Your task to perform on an android device: Toggle the flashlight Image 0: 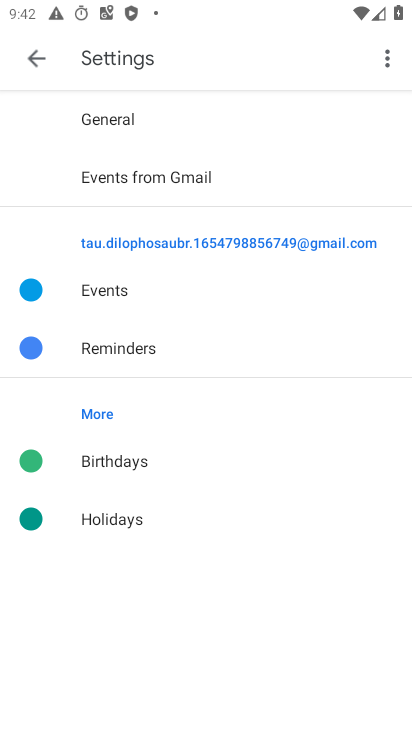
Step 0: press home button
Your task to perform on an android device: Toggle the flashlight Image 1: 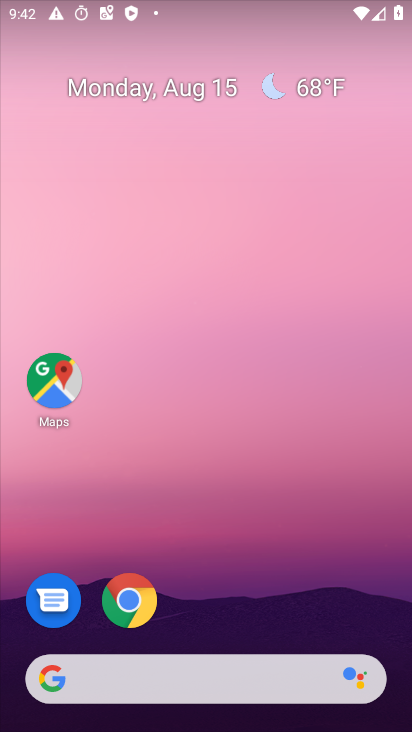
Step 1: drag from (216, 647) to (164, 151)
Your task to perform on an android device: Toggle the flashlight Image 2: 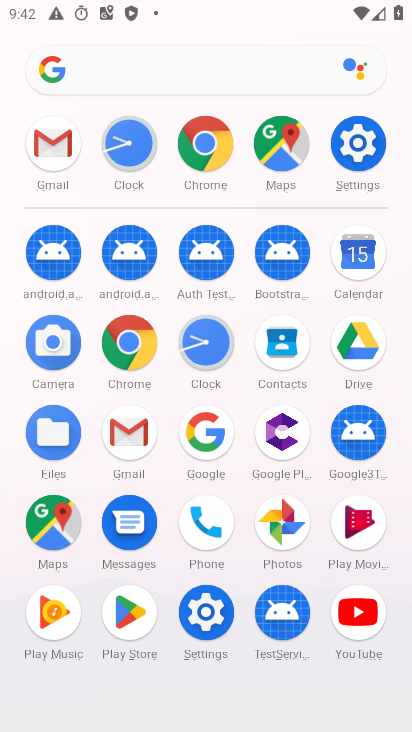
Step 2: click (354, 147)
Your task to perform on an android device: Toggle the flashlight Image 3: 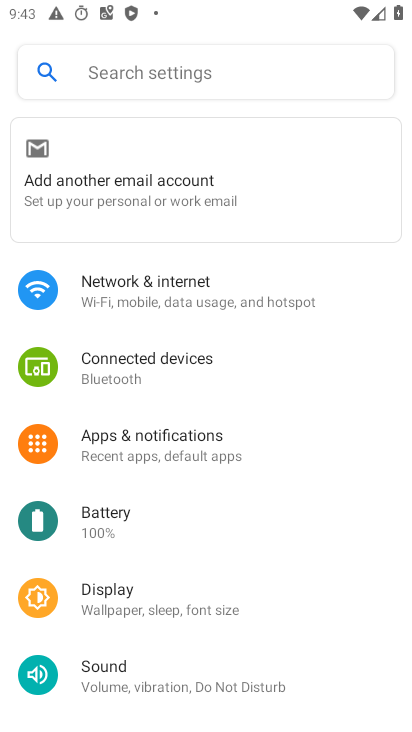
Step 3: task complete